Your task to perform on an android device: move an email to a new category in the gmail app Image 0: 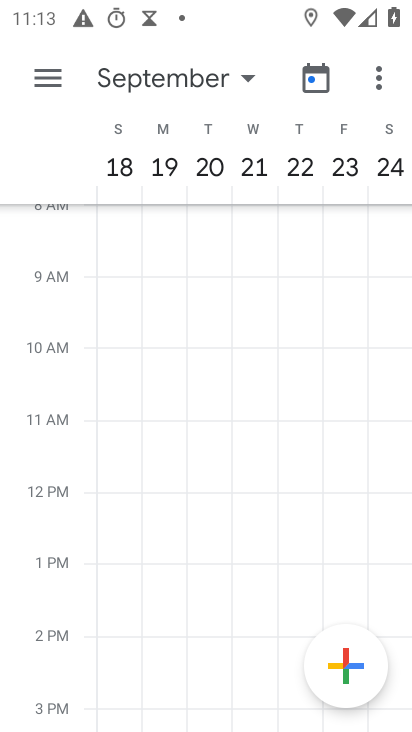
Step 0: press home button
Your task to perform on an android device: move an email to a new category in the gmail app Image 1: 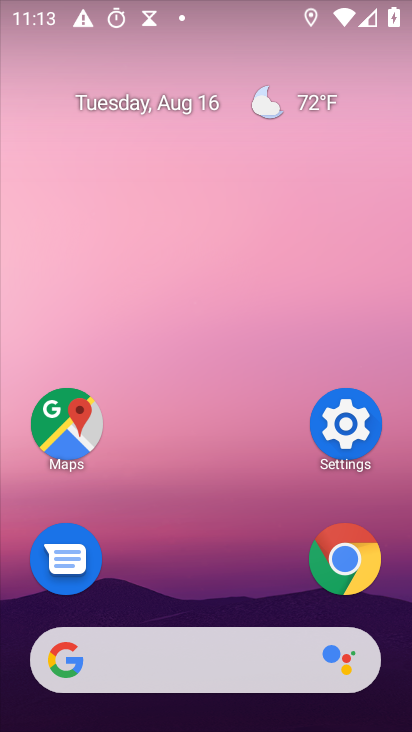
Step 1: drag from (199, 628) to (344, 168)
Your task to perform on an android device: move an email to a new category in the gmail app Image 2: 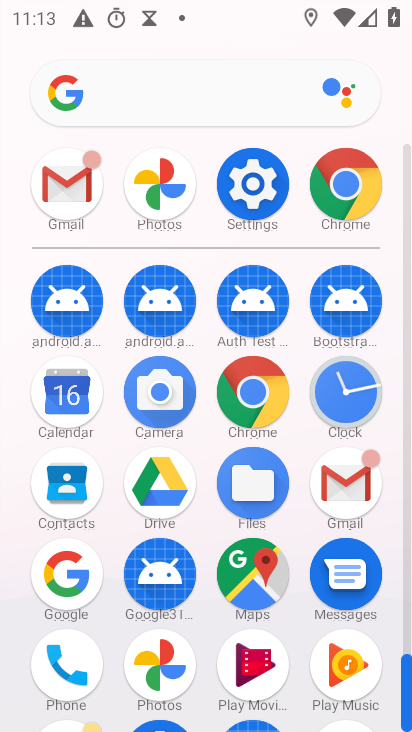
Step 2: click (63, 193)
Your task to perform on an android device: move an email to a new category in the gmail app Image 3: 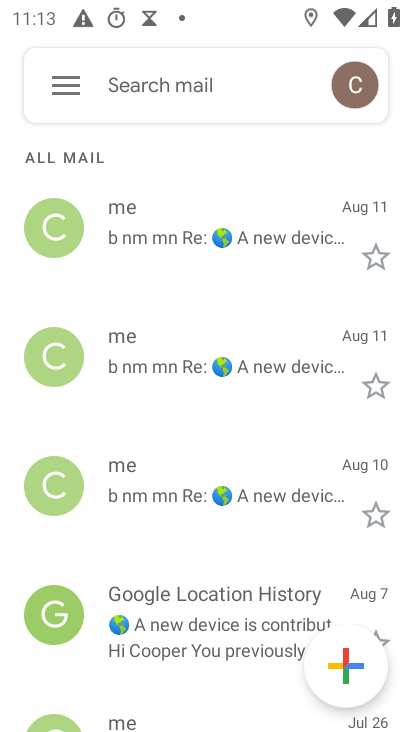
Step 3: click (62, 225)
Your task to perform on an android device: move an email to a new category in the gmail app Image 4: 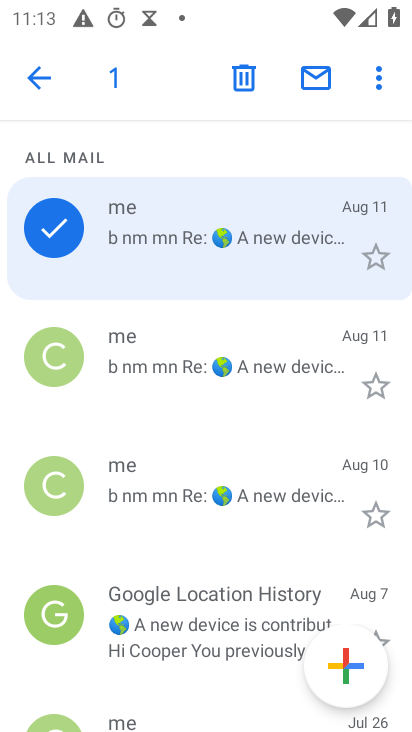
Step 4: click (381, 82)
Your task to perform on an android device: move an email to a new category in the gmail app Image 5: 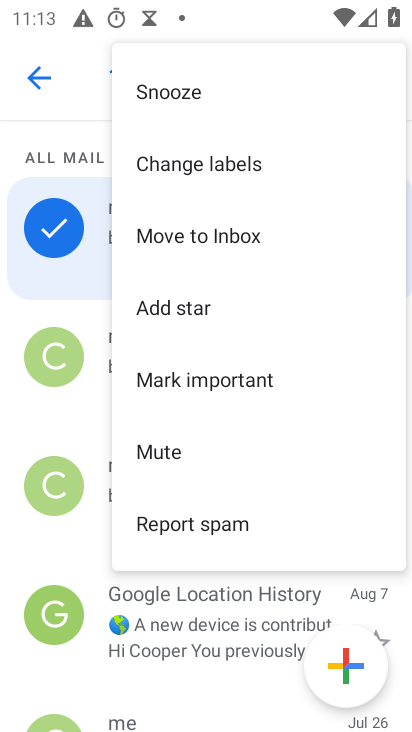
Step 5: click (240, 238)
Your task to perform on an android device: move an email to a new category in the gmail app Image 6: 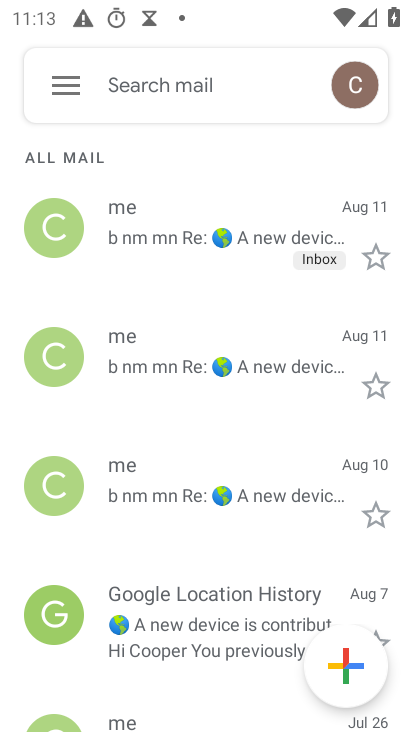
Step 6: task complete